Your task to perform on an android device: Open Reddit.com Image 0: 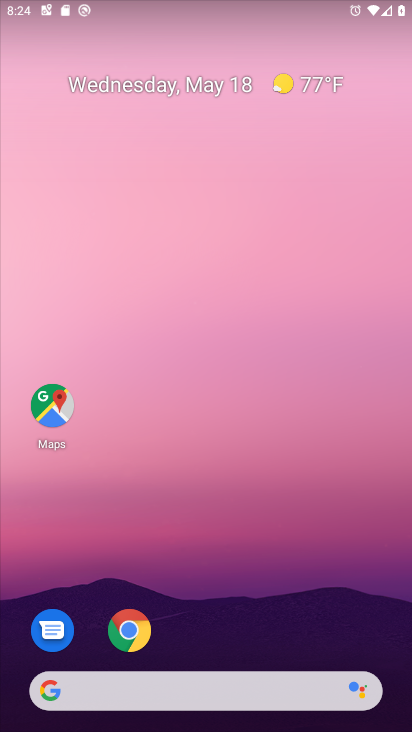
Step 0: drag from (217, 646) to (249, 192)
Your task to perform on an android device: Open Reddit.com Image 1: 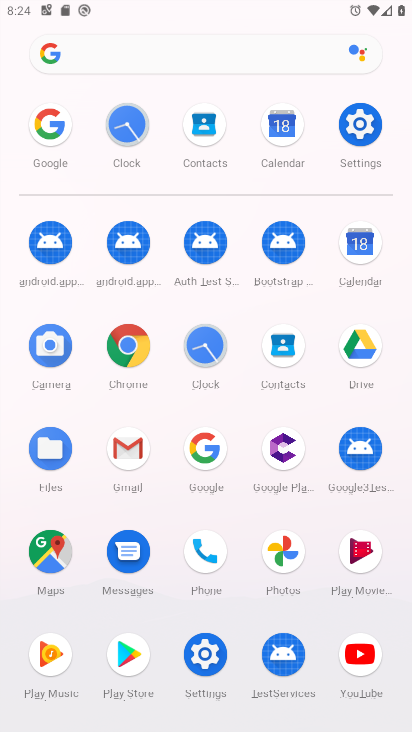
Step 1: click (211, 444)
Your task to perform on an android device: Open Reddit.com Image 2: 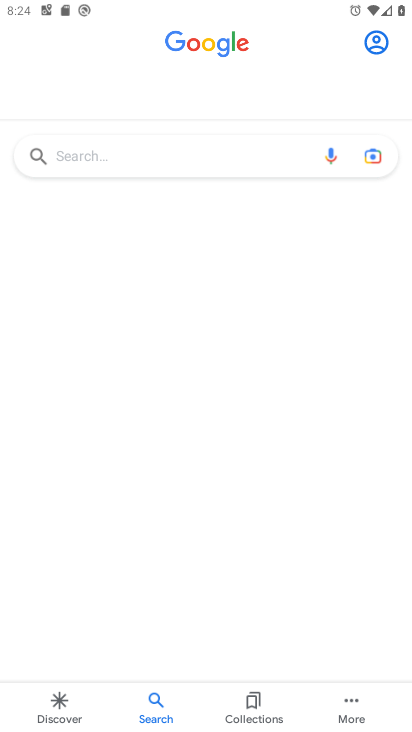
Step 2: drag from (218, 153) to (165, 153)
Your task to perform on an android device: Open Reddit.com Image 3: 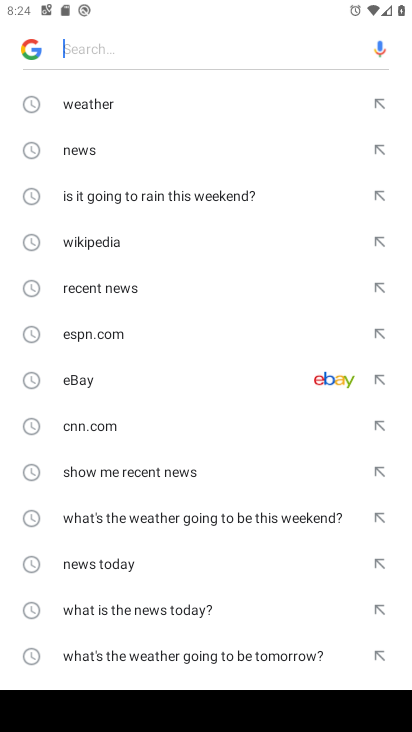
Step 3: drag from (148, 610) to (216, 151)
Your task to perform on an android device: Open Reddit.com Image 4: 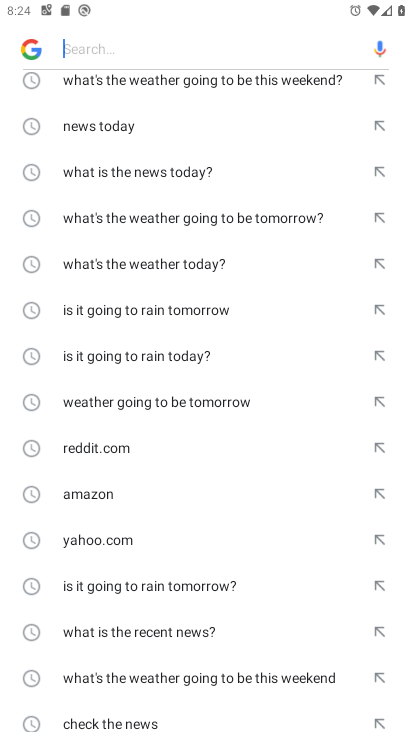
Step 4: click (118, 444)
Your task to perform on an android device: Open Reddit.com Image 5: 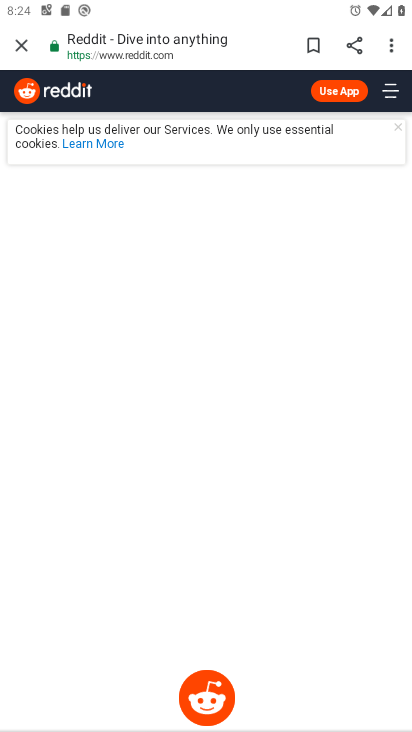
Step 5: task complete